Your task to perform on an android device: Clear the shopping cart on amazon. Add logitech g910 to the cart on amazon, then select checkout. Image 0: 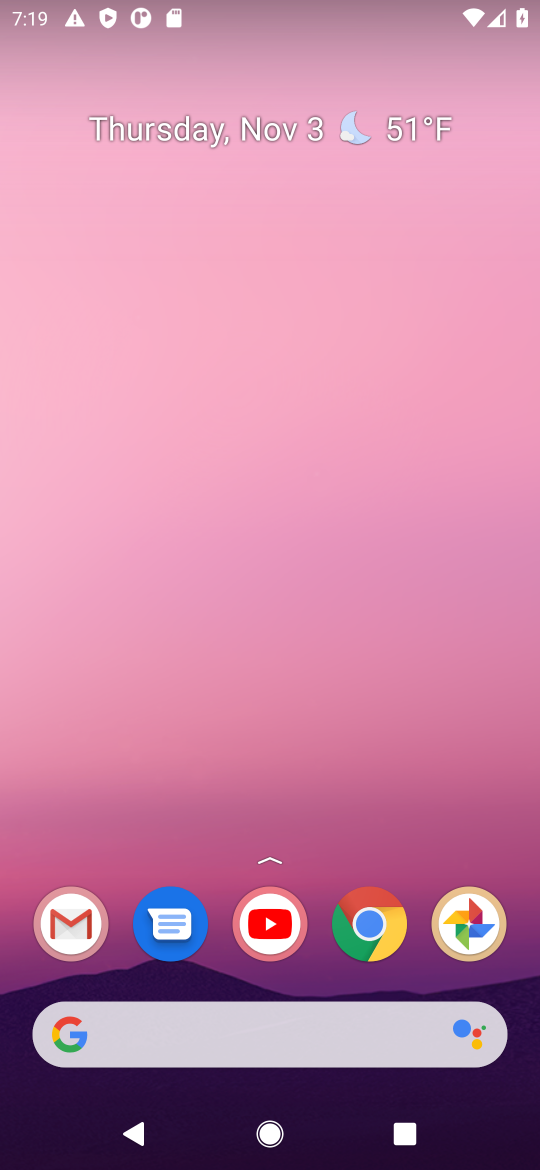
Step 0: drag from (262, 887) to (516, 176)
Your task to perform on an android device: Clear the shopping cart on amazon. Add logitech g910 to the cart on amazon, then select checkout. Image 1: 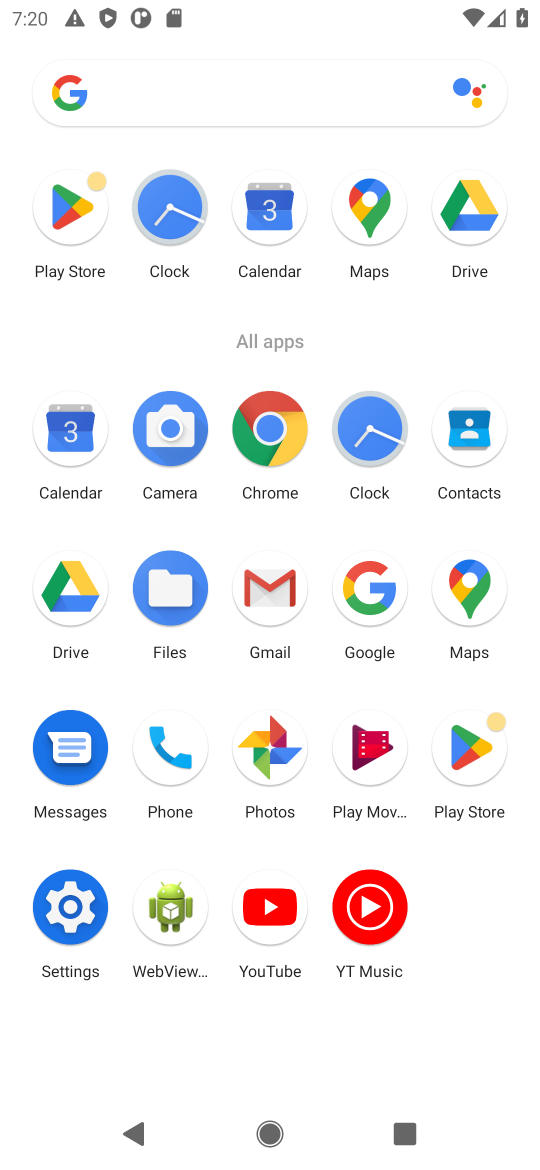
Step 1: click (366, 581)
Your task to perform on an android device: Clear the shopping cart on amazon. Add logitech g910 to the cart on amazon, then select checkout. Image 2: 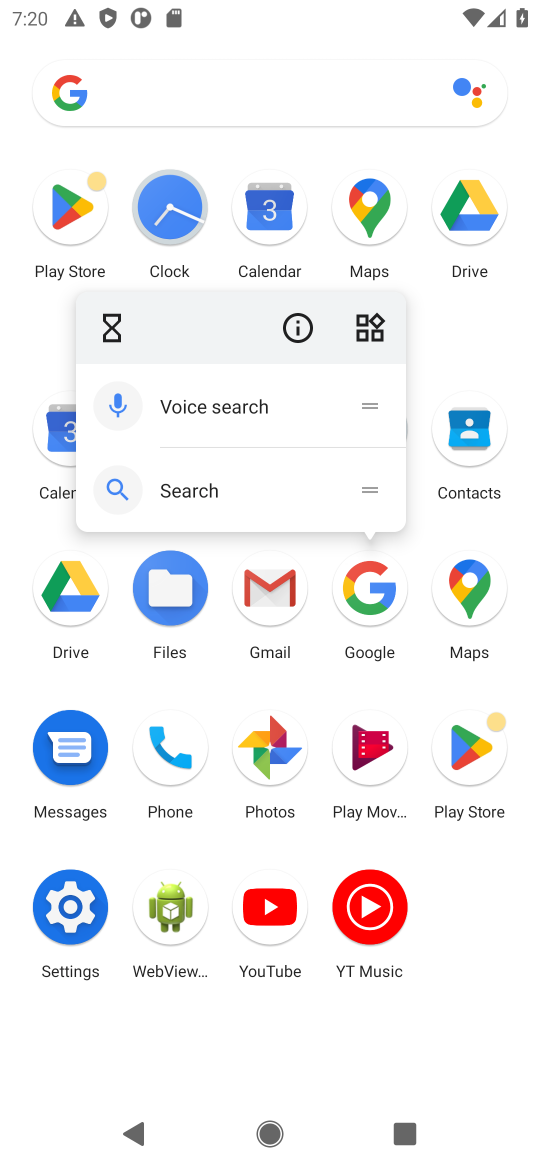
Step 2: click (366, 581)
Your task to perform on an android device: Clear the shopping cart on amazon. Add logitech g910 to the cart on amazon, then select checkout. Image 3: 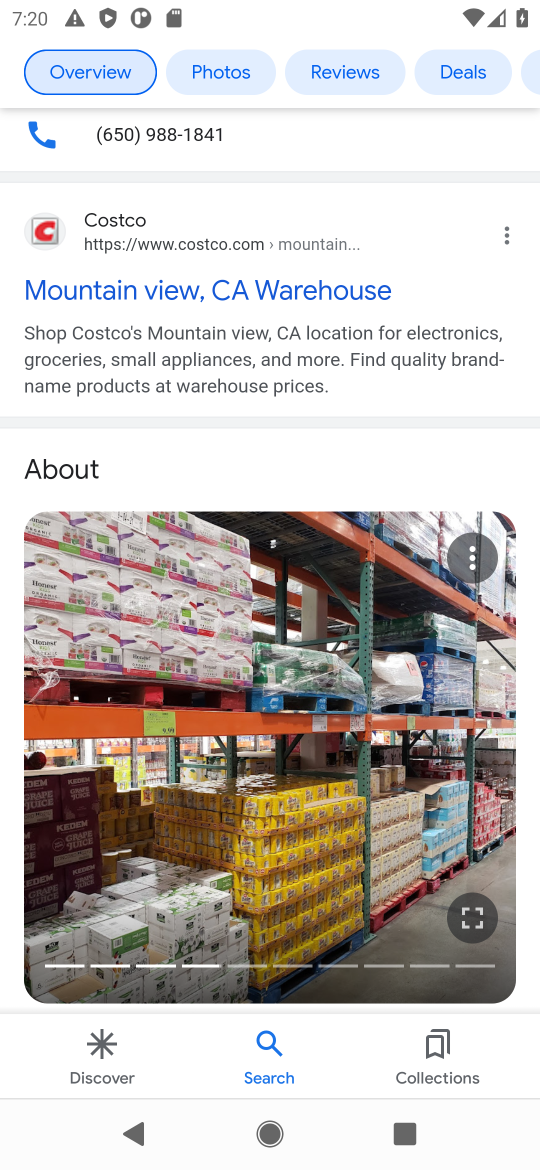
Step 3: drag from (96, 221) to (44, 1088)
Your task to perform on an android device: Clear the shopping cart on amazon. Add logitech g910 to the cart on amazon, then select checkout. Image 4: 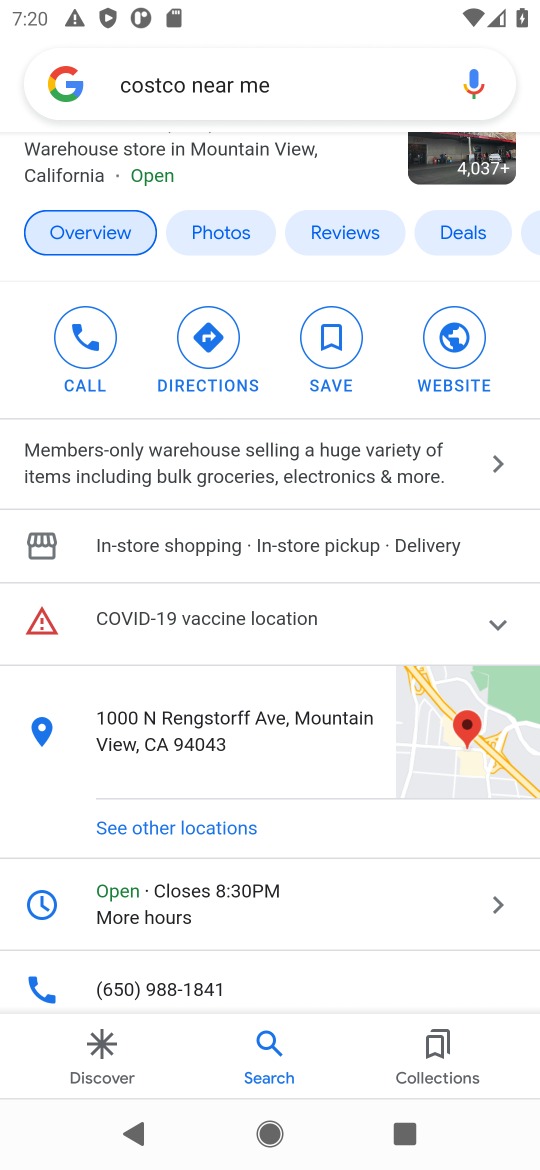
Step 4: click (214, 86)
Your task to perform on an android device: Clear the shopping cart on amazon. Add logitech g910 to the cart on amazon, then select checkout. Image 5: 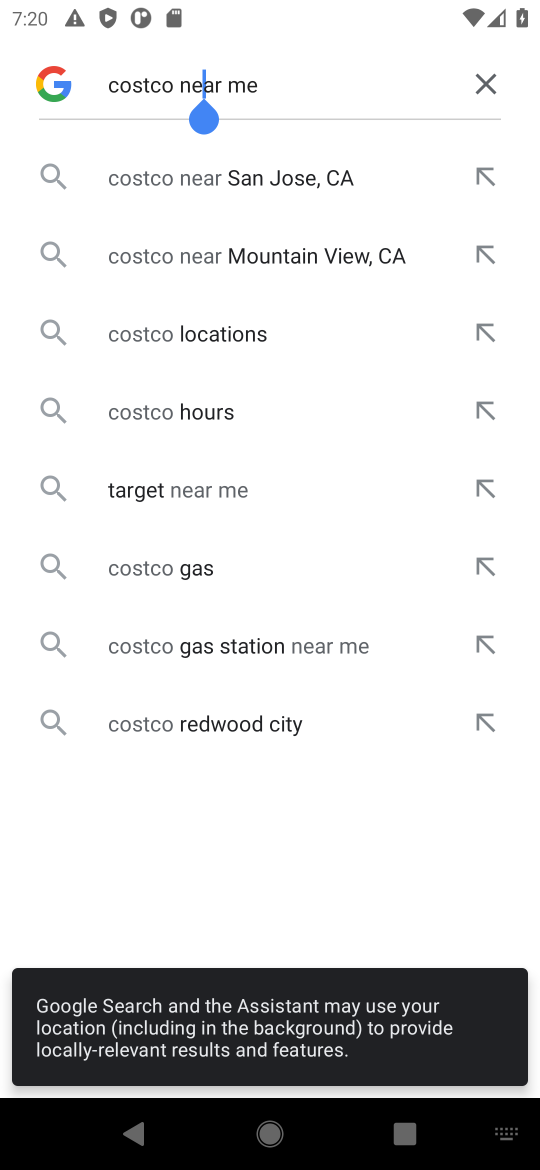
Step 5: click (476, 83)
Your task to perform on an android device: Clear the shopping cart on amazon. Add logitech g910 to the cart on amazon, then select checkout. Image 6: 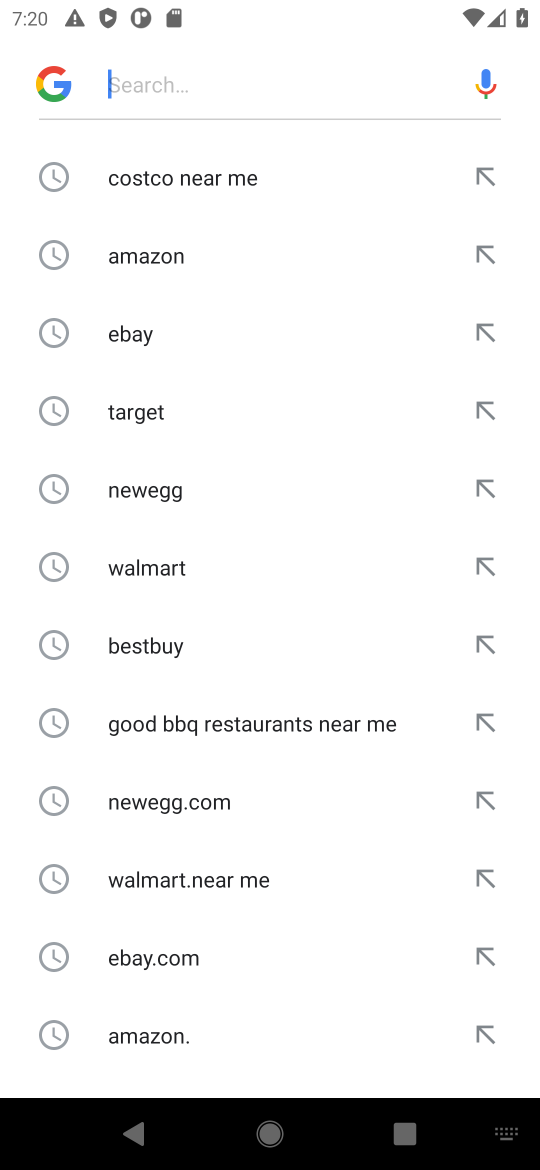
Step 6: click (198, 85)
Your task to perform on an android device: Clear the shopping cart on amazon. Add logitech g910 to the cart on amazon, then select checkout. Image 7: 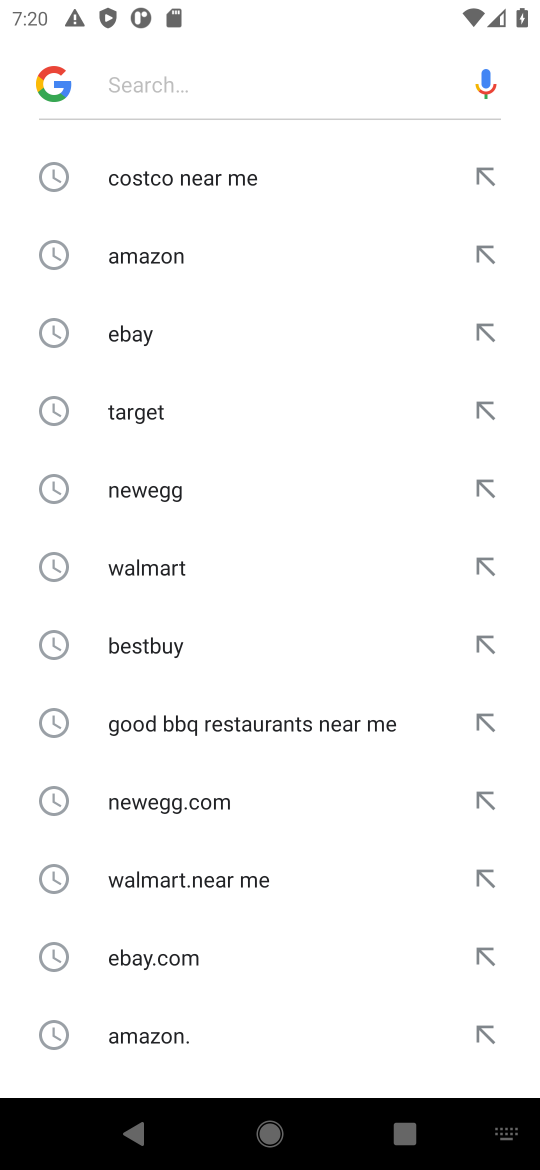
Step 7: type "amazon "
Your task to perform on an android device: Clear the shopping cart on amazon. Add logitech g910 to the cart on amazon, then select checkout. Image 8: 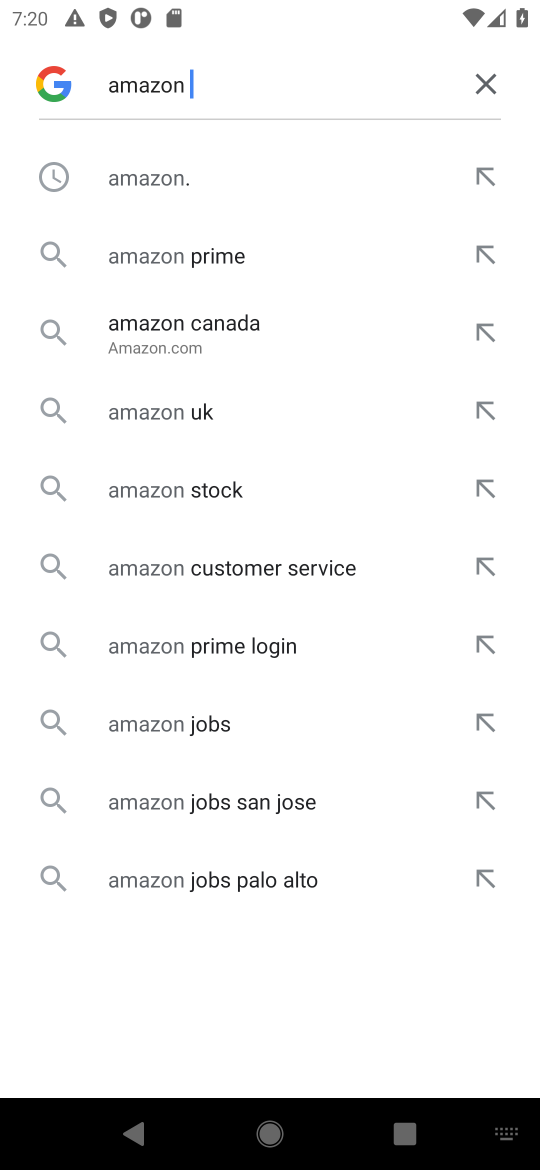
Step 8: click (132, 176)
Your task to perform on an android device: Clear the shopping cart on amazon. Add logitech g910 to the cart on amazon, then select checkout. Image 9: 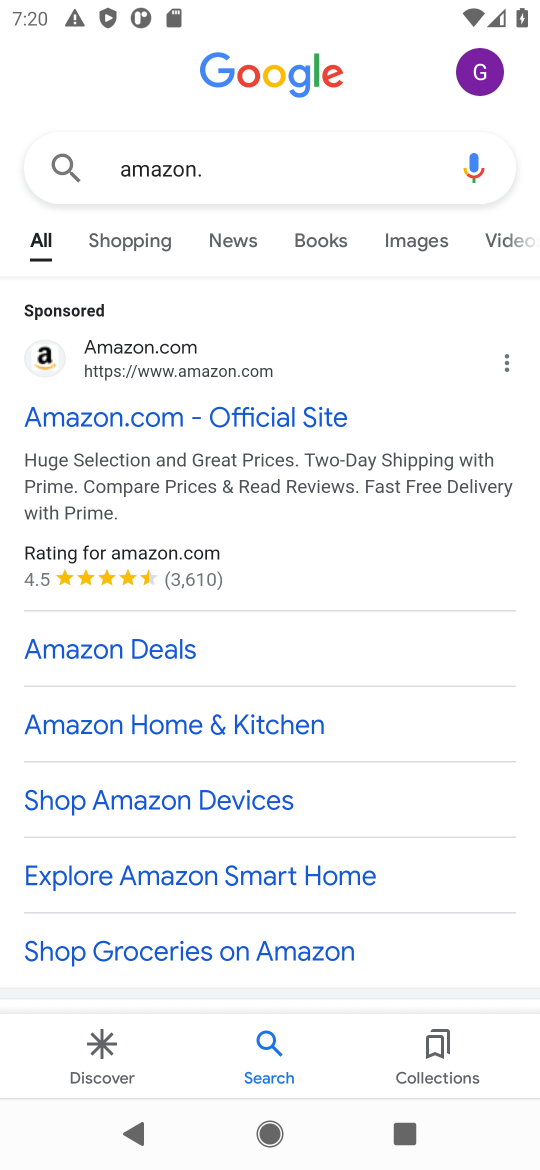
Step 9: click (54, 351)
Your task to perform on an android device: Clear the shopping cart on amazon. Add logitech g910 to the cart on amazon, then select checkout. Image 10: 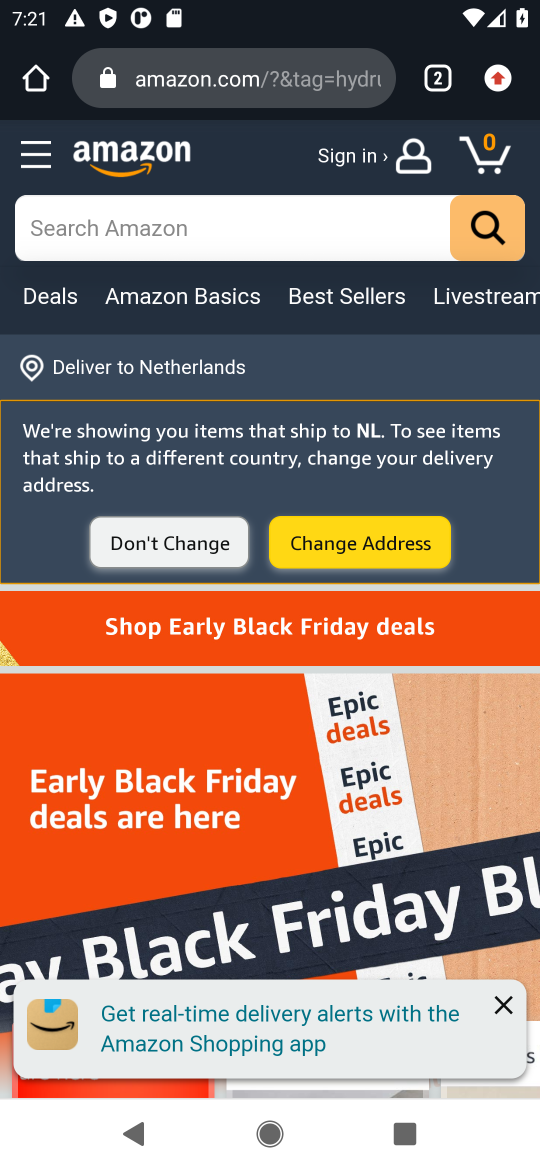
Step 10: click (266, 217)
Your task to perform on an android device: Clear the shopping cart on amazon. Add logitech g910 to the cart on amazon, then select checkout. Image 11: 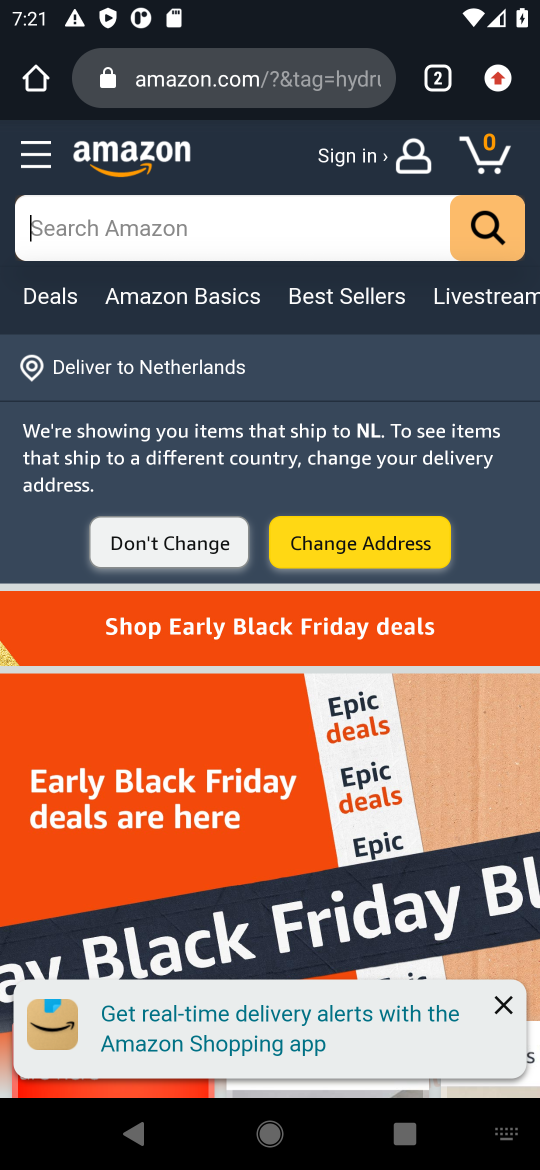
Step 11: type "logitech g910 "
Your task to perform on an android device: Clear the shopping cart on amazon. Add logitech g910 to the cart on amazon, then select checkout. Image 12: 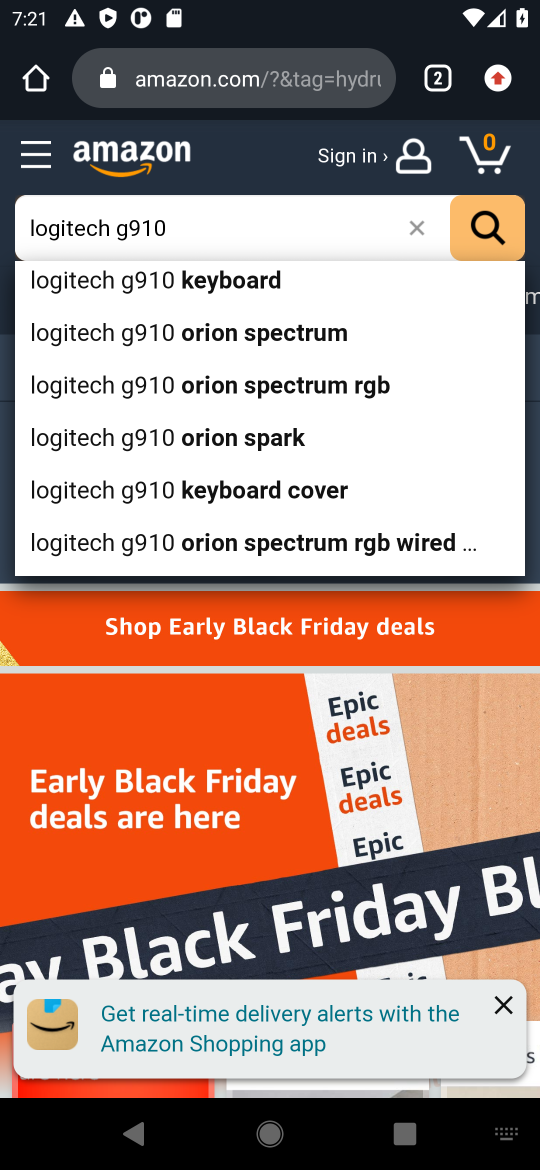
Step 12: click (483, 222)
Your task to perform on an android device: Clear the shopping cart on amazon. Add logitech g910 to the cart on amazon, then select checkout. Image 13: 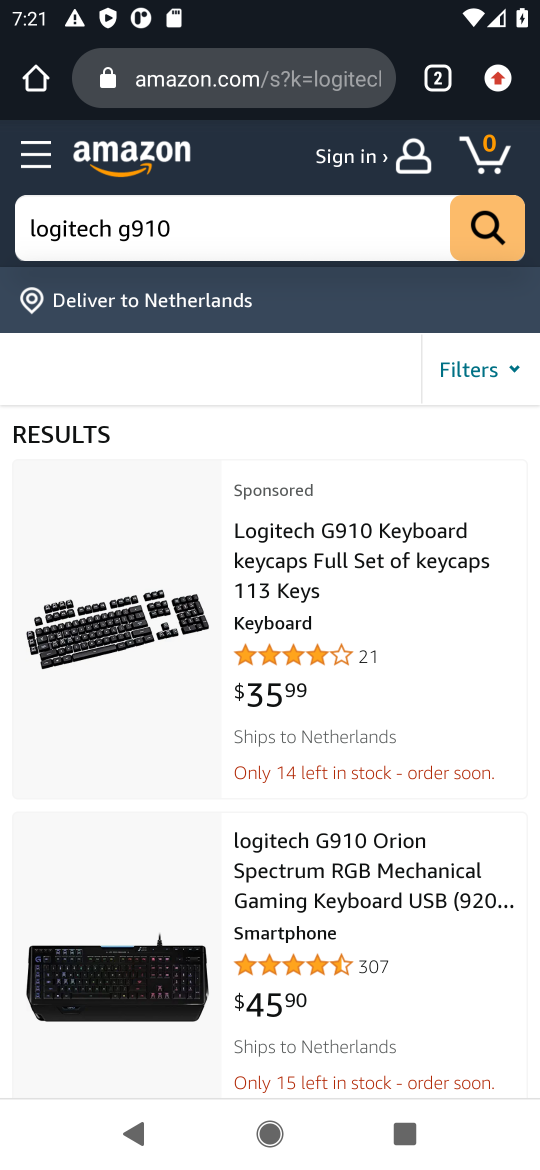
Step 13: click (354, 525)
Your task to perform on an android device: Clear the shopping cart on amazon. Add logitech g910 to the cart on amazon, then select checkout. Image 14: 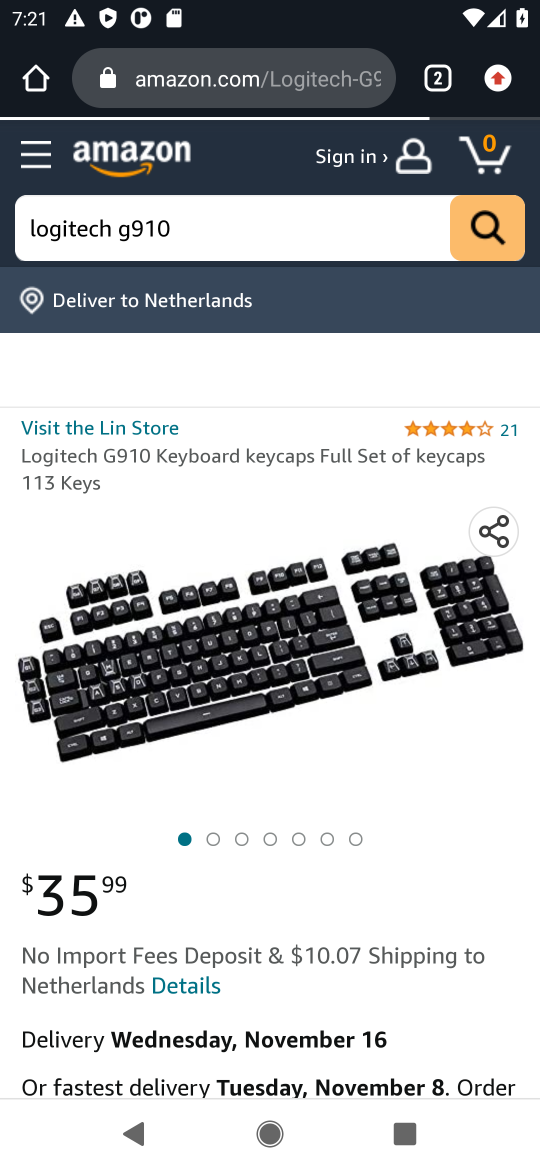
Step 14: drag from (354, 1002) to (306, 281)
Your task to perform on an android device: Clear the shopping cart on amazon. Add logitech g910 to the cart on amazon, then select checkout. Image 15: 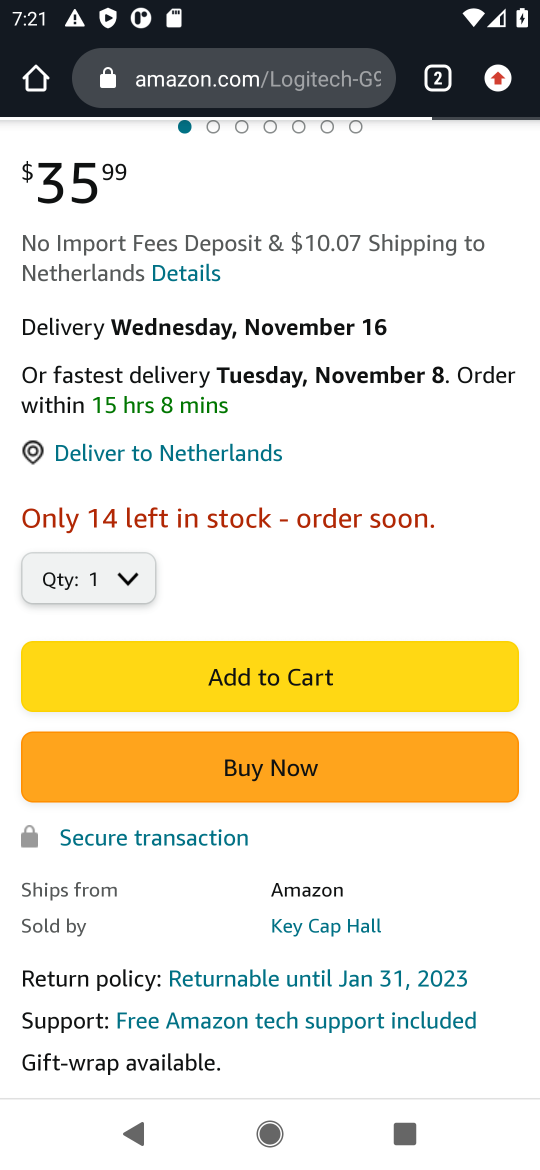
Step 15: click (315, 662)
Your task to perform on an android device: Clear the shopping cart on amazon. Add logitech g910 to the cart on amazon, then select checkout. Image 16: 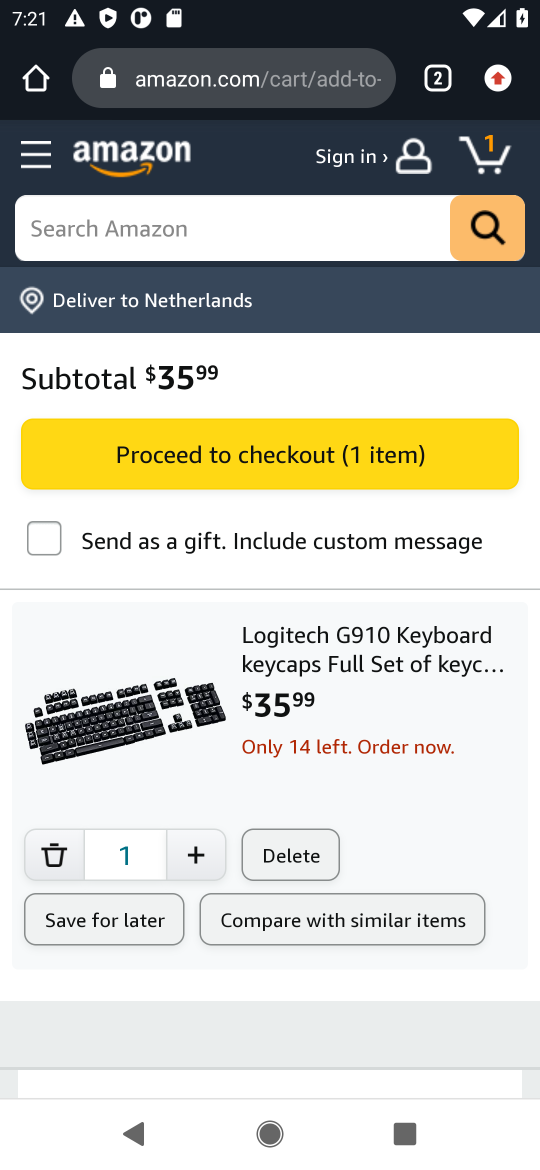
Step 16: task complete